Your task to perform on an android device: turn on wifi Image 0: 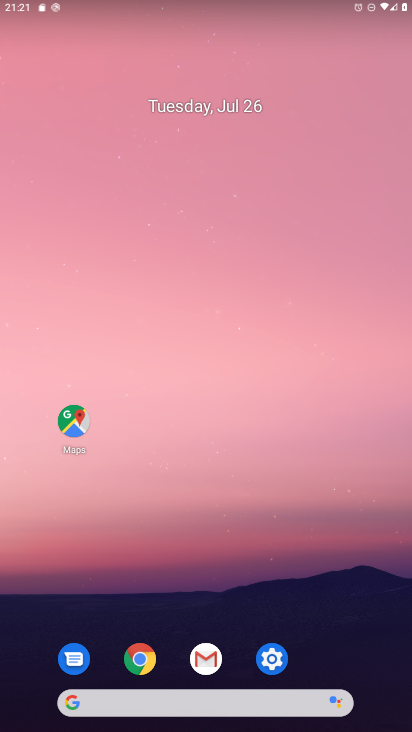
Step 0: click (280, 668)
Your task to perform on an android device: turn on wifi Image 1: 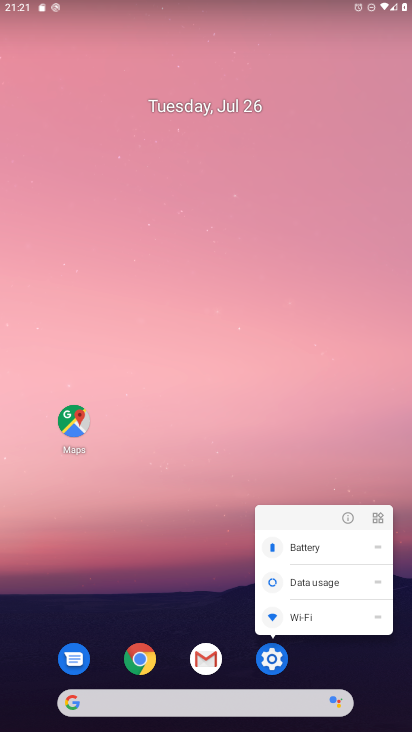
Step 1: click (261, 653)
Your task to perform on an android device: turn on wifi Image 2: 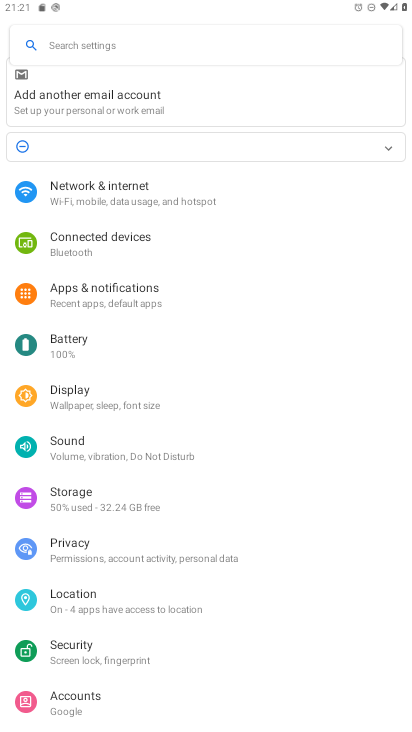
Step 2: click (129, 204)
Your task to perform on an android device: turn on wifi Image 3: 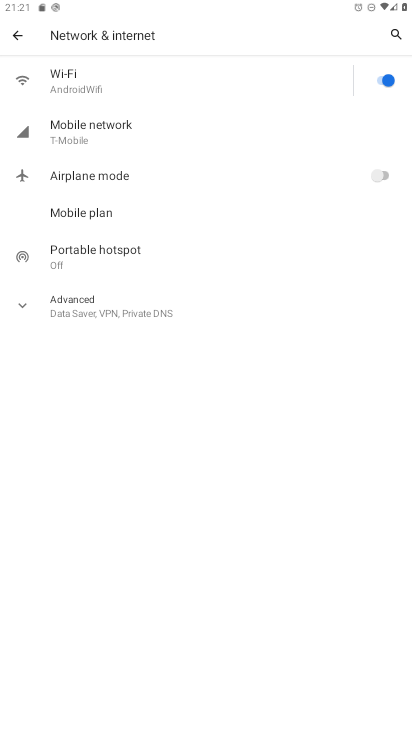
Step 3: click (126, 78)
Your task to perform on an android device: turn on wifi Image 4: 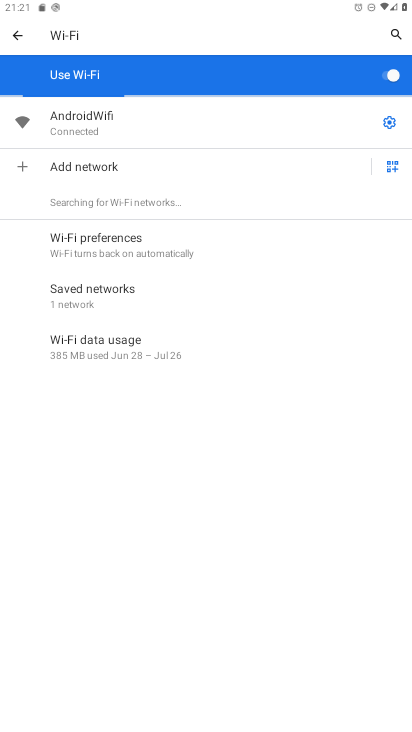
Step 4: click (394, 76)
Your task to perform on an android device: turn on wifi Image 5: 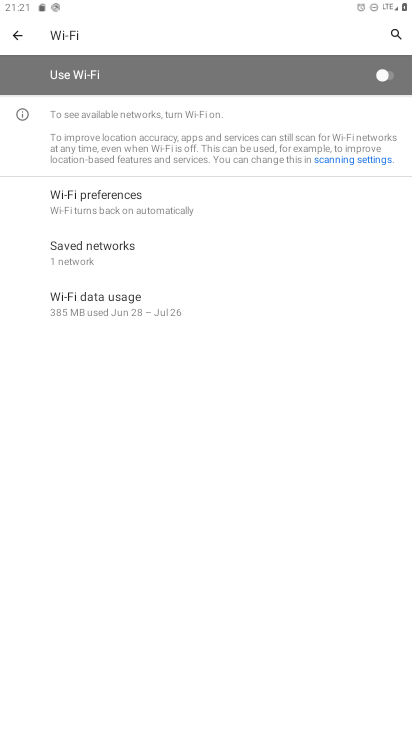
Step 5: click (394, 76)
Your task to perform on an android device: turn on wifi Image 6: 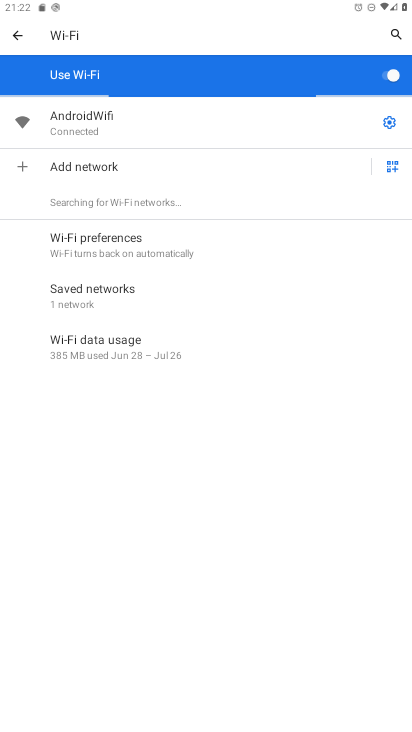
Step 6: task complete